Your task to perform on an android device: move a message to another label in the gmail app Image 0: 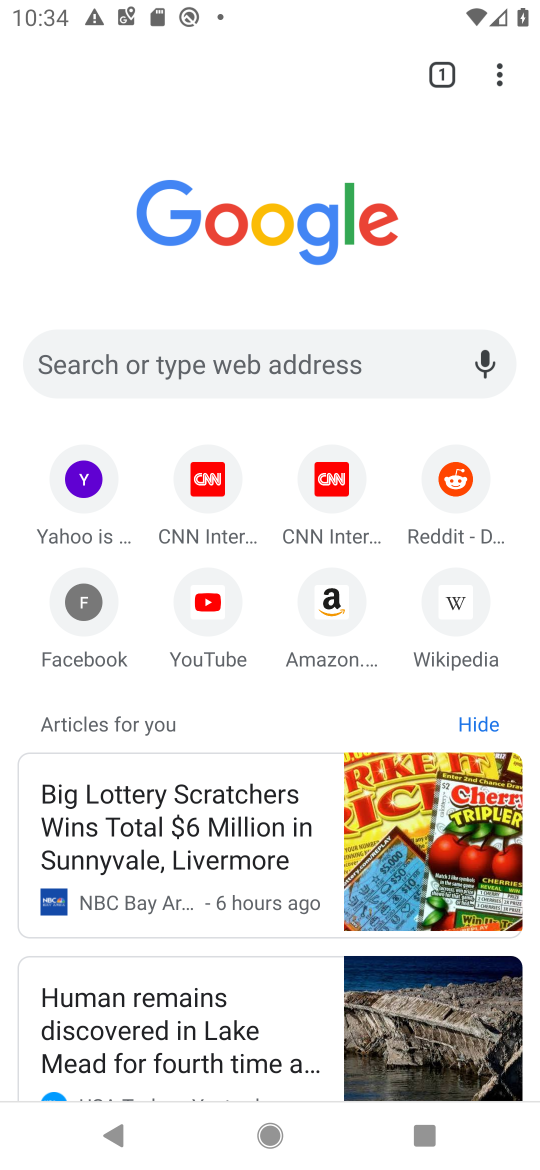
Step 0: press home button
Your task to perform on an android device: move a message to another label in the gmail app Image 1: 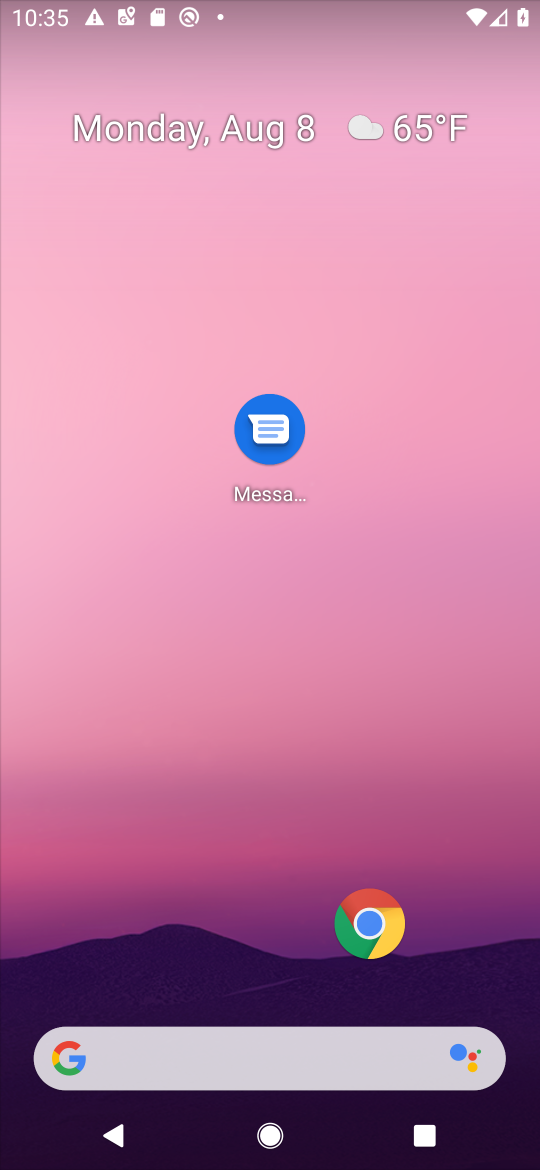
Step 1: drag from (146, 889) to (269, 398)
Your task to perform on an android device: move a message to another label in the gmail app Image 2: 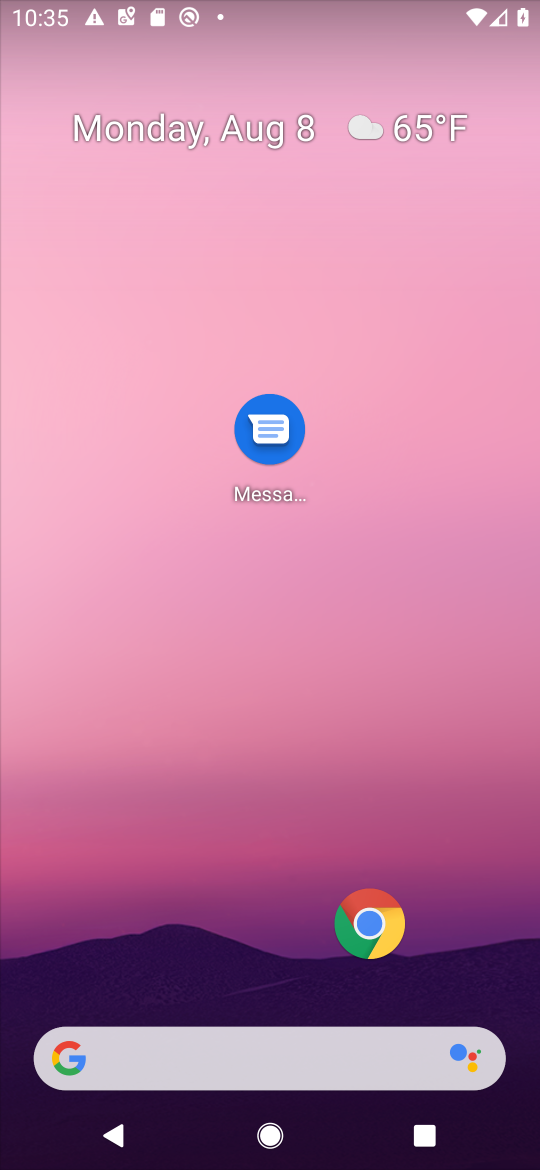
Step 2: drag from (107, 996) to (305, 249)
Your task to perform on an android device: move a message to another label in the gmail app Image 3: 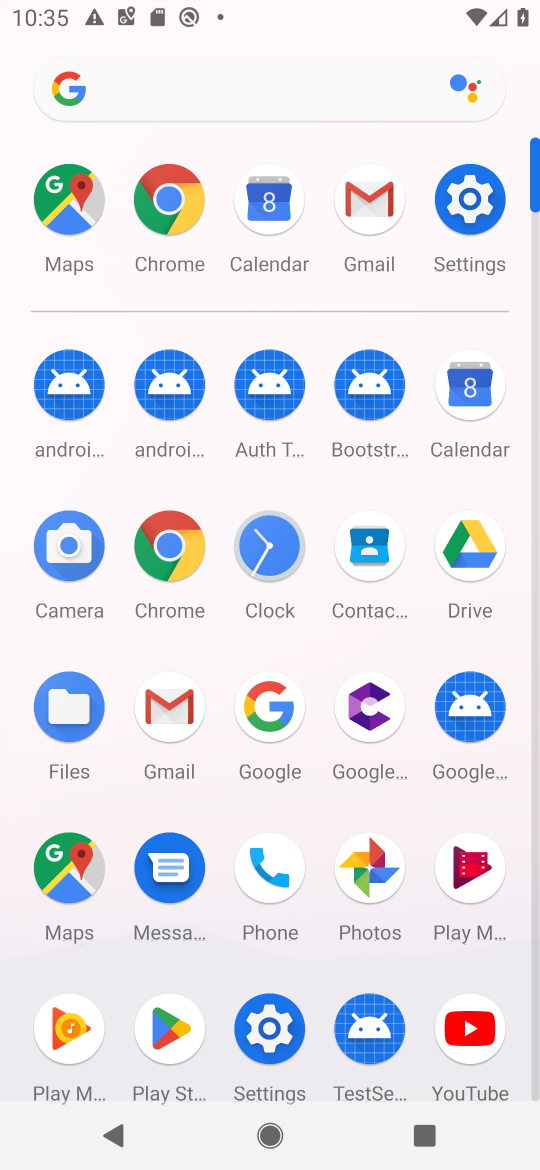
Step 3: click (178, 707)
Your task to perform on an android device: move a message to another label in the gmail app Image 4: 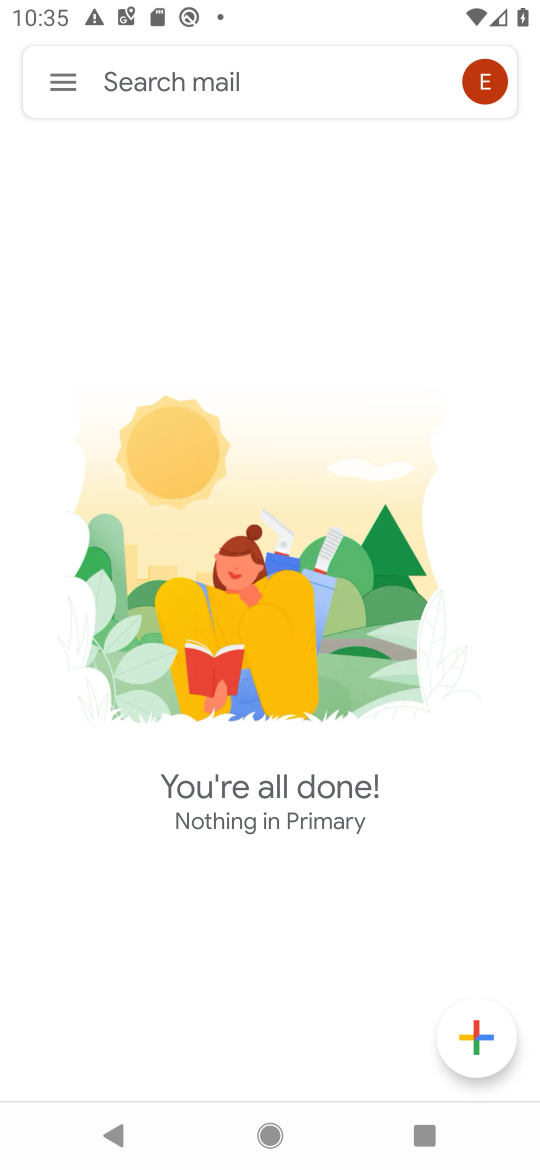
Step 4: click (59, 73)
Your task to perform on an android device: move a message to another label in the gmail app Image 5: 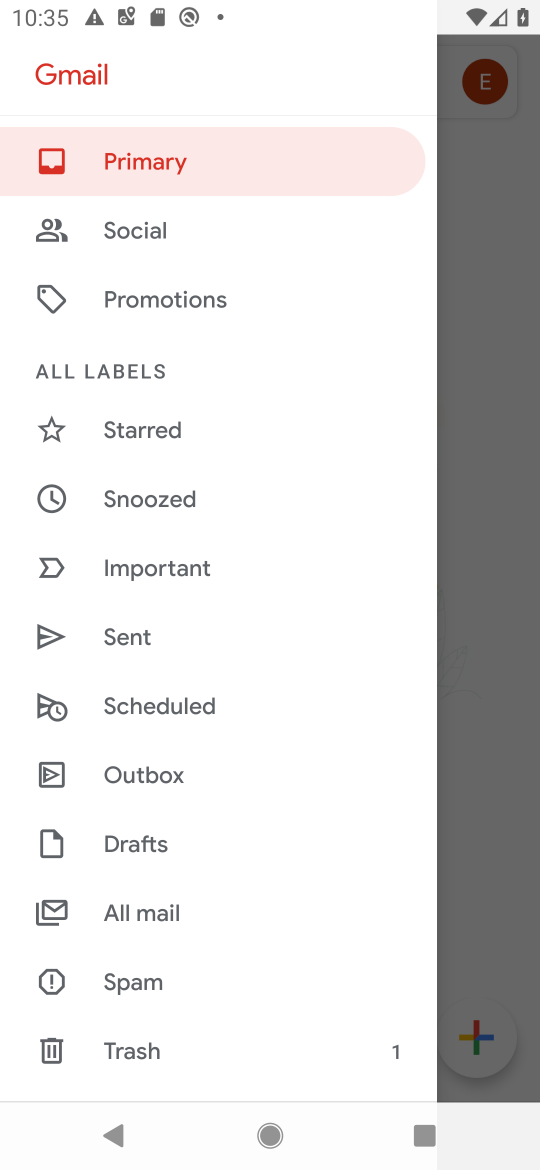
Step 5: click (176, 169)
Your task to perform on an android device: move a message to another label in the gmail app Image 6: 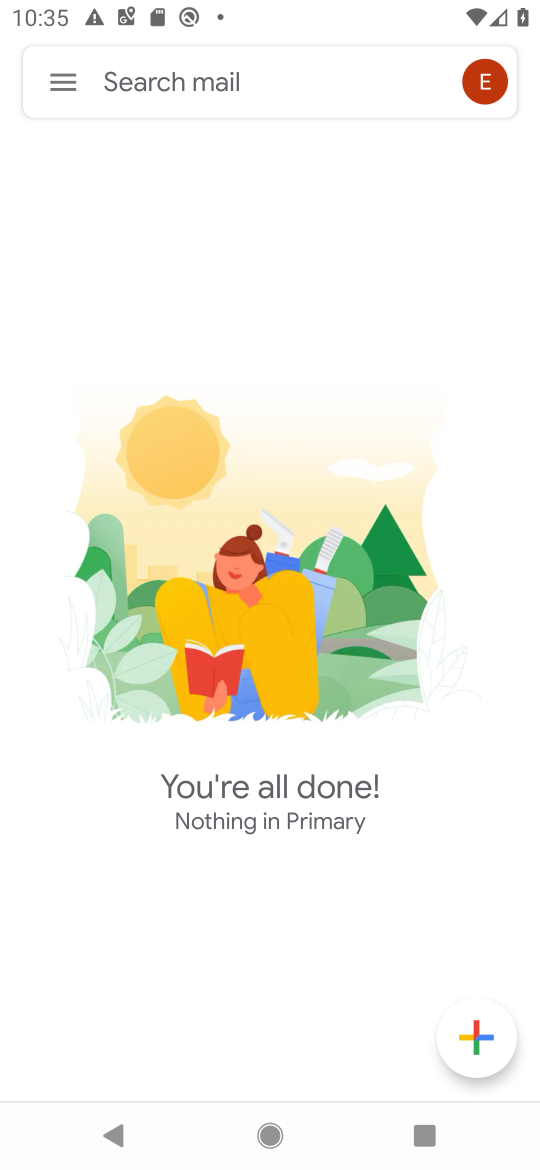
Step 6: task complete